Your task to perform on an android device: check out phone information Image 0: 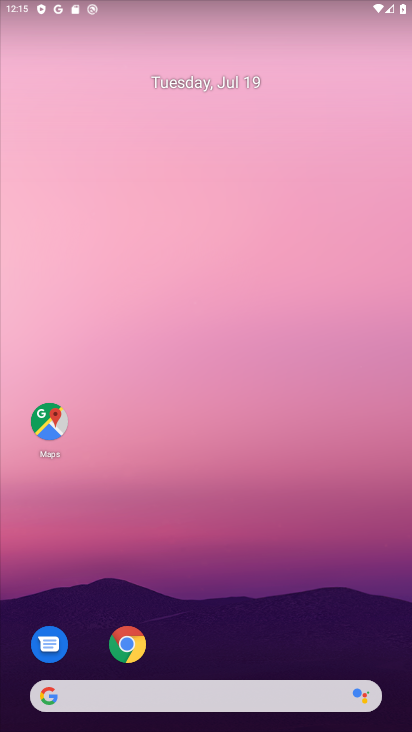
Step 0: drag from (235, 655) to (299, 226)
Your task to perform on an android device: check out phone information Image 1: 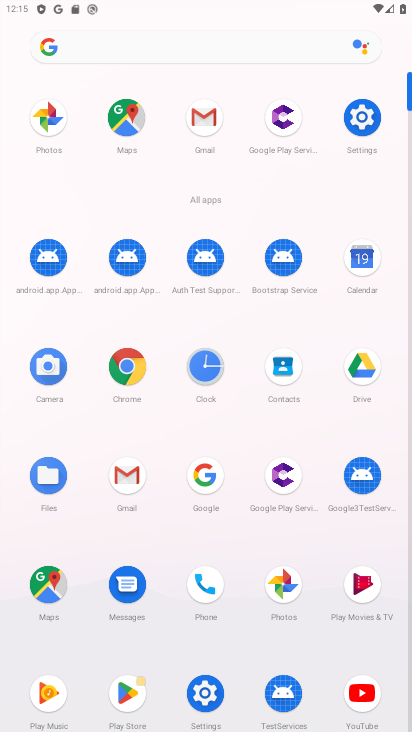
Step 1: click (199, 704)
Your task to perform on an android device: check out phone information Image 2: 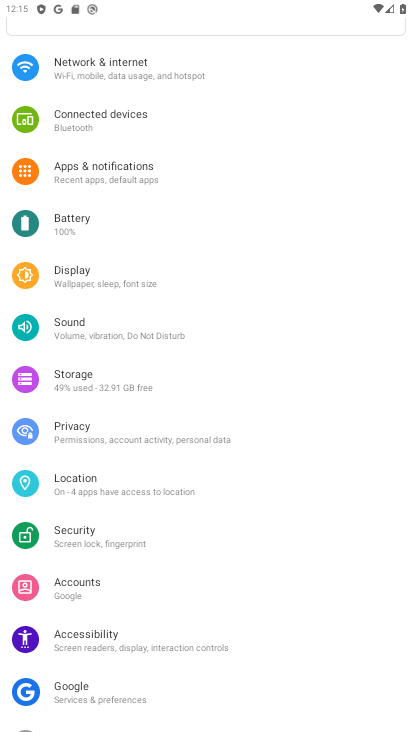
Step 2: drag from (202, 682) to (258, 127)
Your task to perform on an android device: check out phone information Image 3: 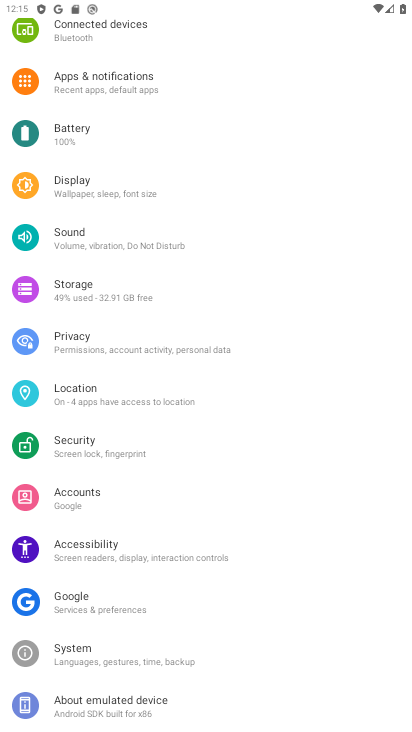
Step 3: click (181, 702)
Your task to perform on an android device: check out phone information Image 4: 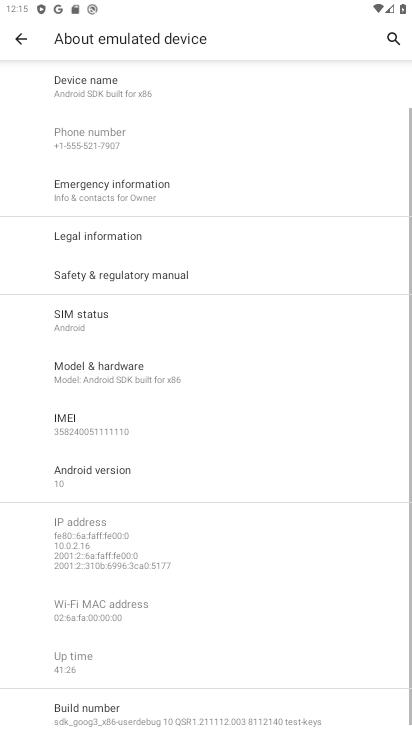
Step 4: task complete